Your task to perform on an android device: change keyboard looks Image 0: 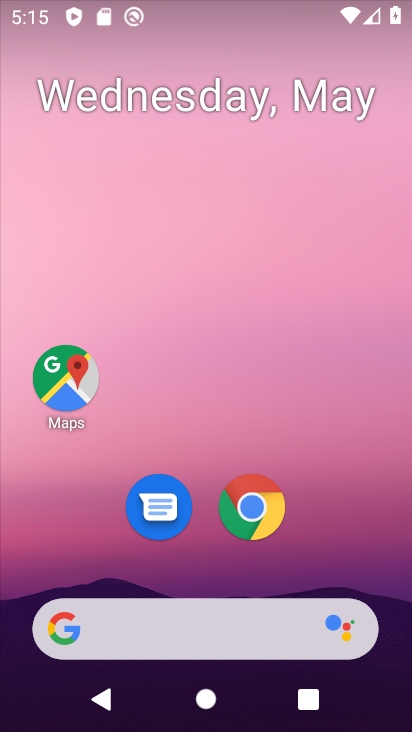
Step 0: drag from (336, 559) to (237, 38)
Your task to perform on an android device: change keyboard looks Image 1: 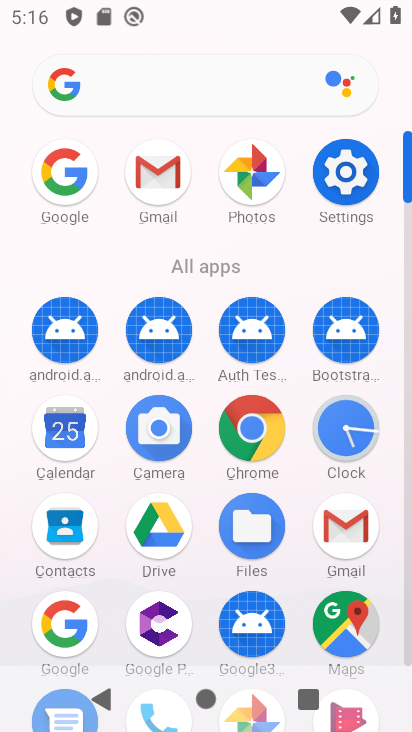
Step 1: click (347, 167)
Your task to perform on an android device: change keyboard looks Image 2: 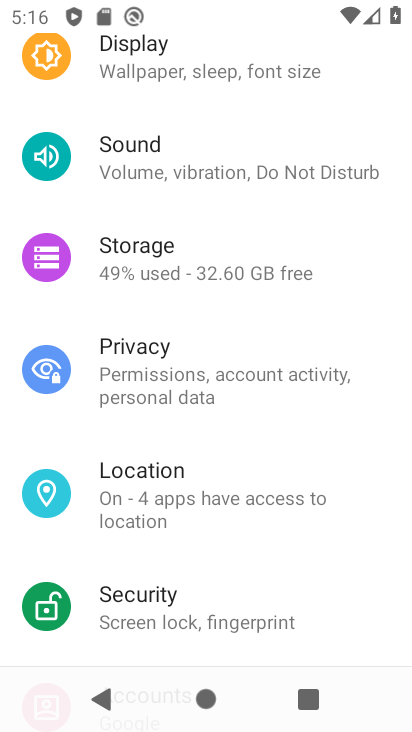
Step 2: drag from (195, 446) to (256, 318)
Your task to perform on an android device: change keyboard looks Image 3: 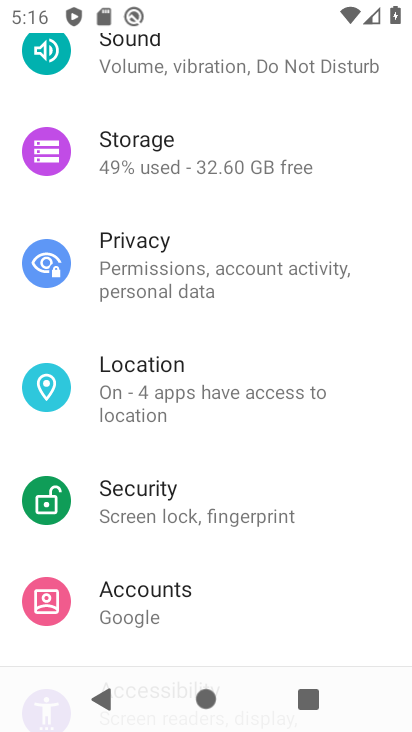
Step 3: drag from (171, 553) to (241, 445)
Your task to perform on an android device: change keyboard looks Image 4: 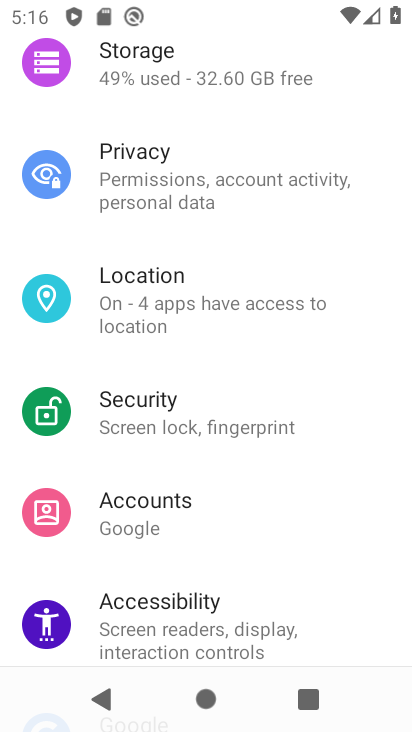
Step 4: drag from (146, 572) to (206, 450)
Your task to perform on an android device: change keyboard looks Image 5: 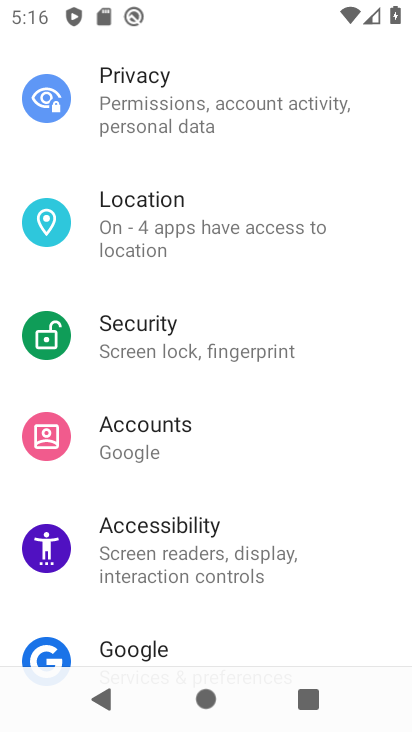
Step 5: drag from (122, 608) to (219, 474)
Your task to perform on an android device: change keyboard looks Image 6: 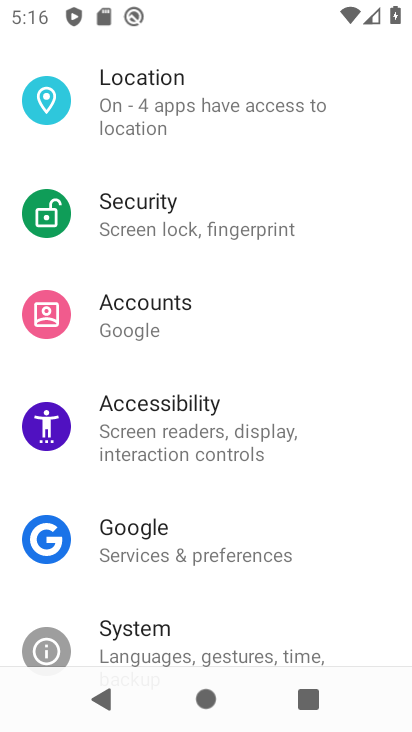
Step 6: drag from (126, 591) to (225, 477)
Your task to perform on an android device: change keyboard looks Image 7: 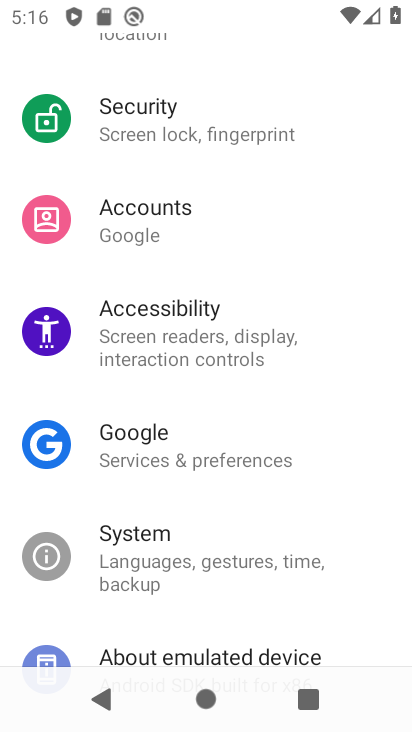
Step 7: click (128, 566)
Your task to perform on an android device: change keyboard looks Image 8: 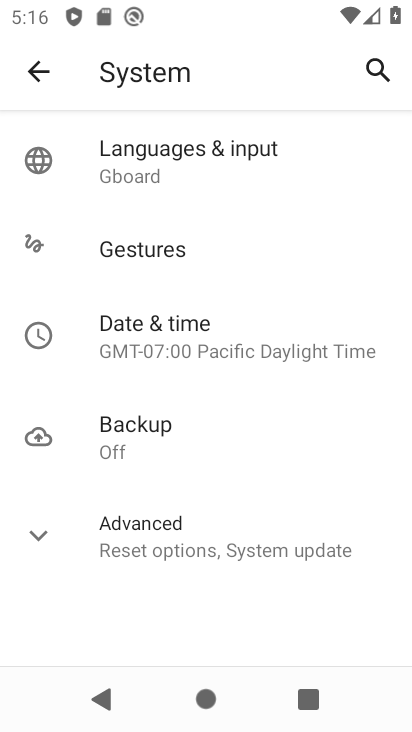
Step 8: click (188, 148)
Your task to perform on an android device: change keyboard looks Image 9: 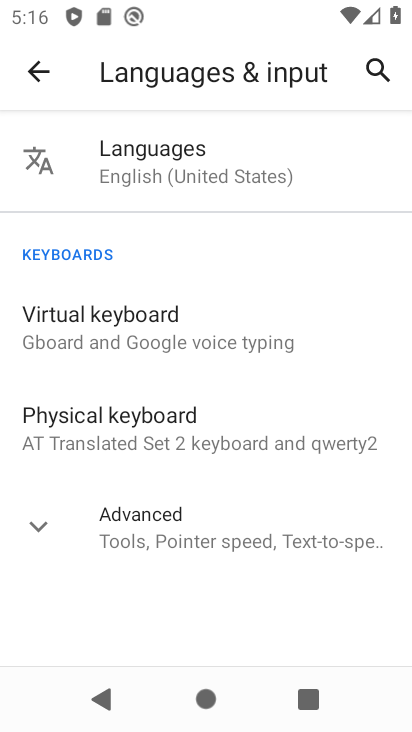
Step 9: click (135, 319)
Your task to perform on an android device: change keyboard looks Image 10: 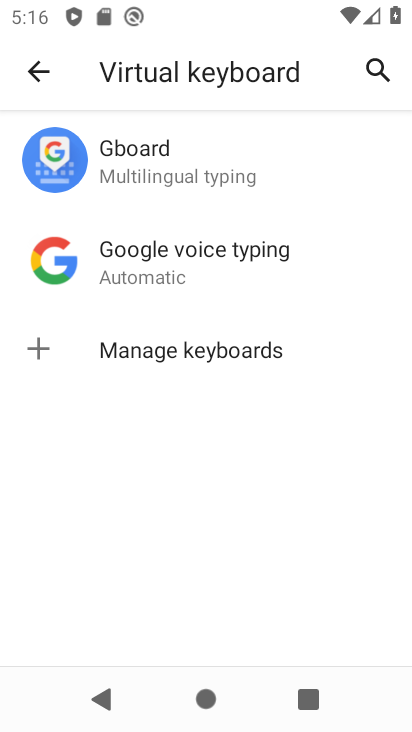
Step 10: click (161, 159)
Your task to perform on an android device: change keyboard looks Image 11: 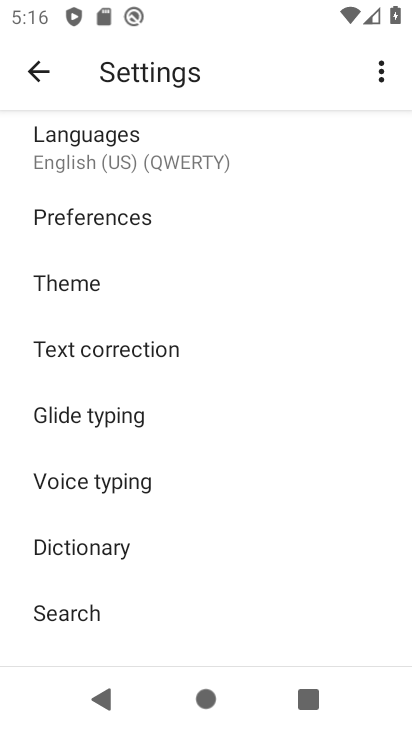
Step 11: click (53, 289)
Your task to perform on an android device: change keyboard looks Image 12: 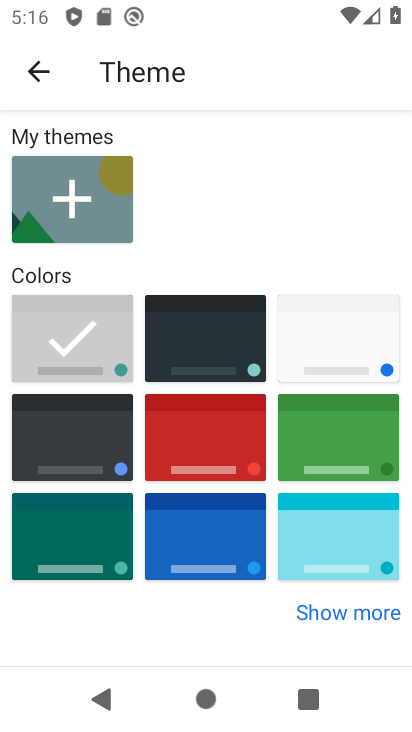
Step 12: click (332, 454)
Your task to perform on an android device: change keyboard looks Image 13: 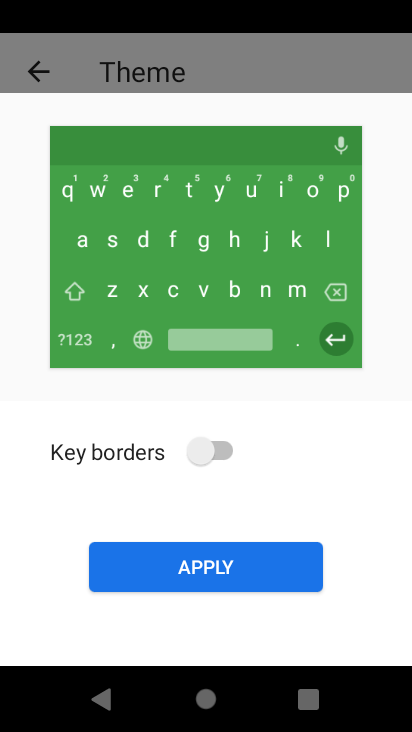
Step 13: click (209, 449)
Your task to perform on an android device: change keyboard looks Image 14: 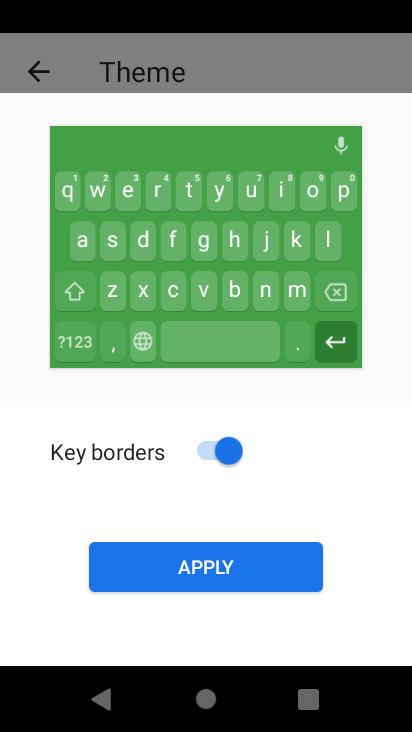
Step 14: click (188, 572)
Your task to perform on an android device: change keyboard looks Image 15: 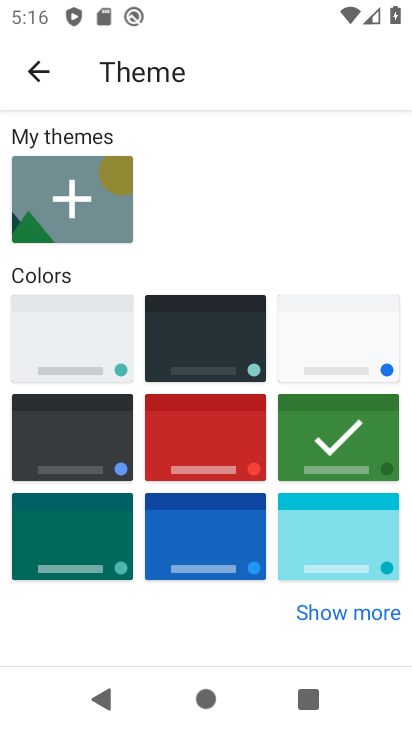
Step 15: task complete